Your task to perform on an android device: turn smart compose on in the gmail app Image 0: 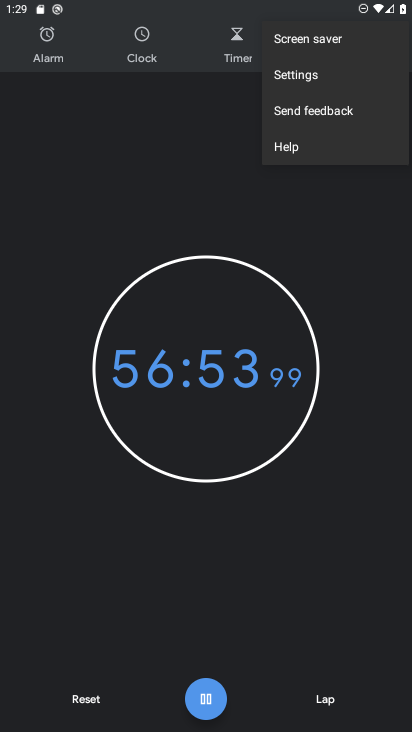
Step 0: click (80, 701)
Your task to perform on an android device: turn smart compose on in the gmail app Image 1: 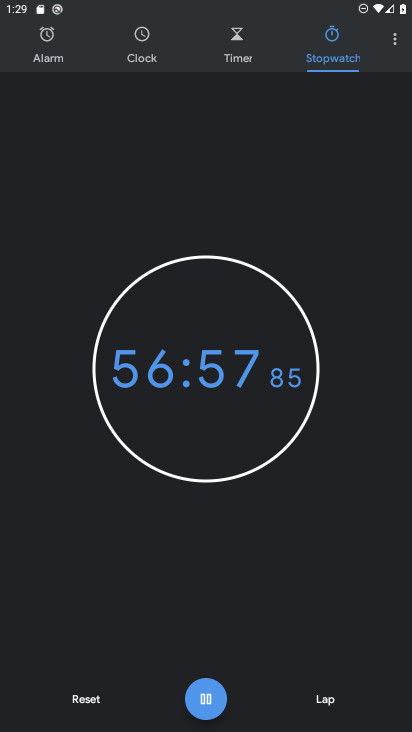
Step 1: click (82, 701)
Your task to perform on an android device: turn smart compose on in the gmail app Image 2: 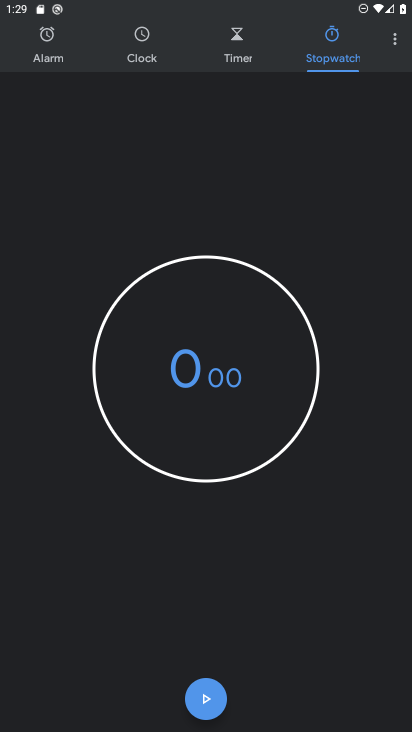
Step 2: press home button
Your task to perform on an android device: turn smart compose on in the gmail app Image 3: 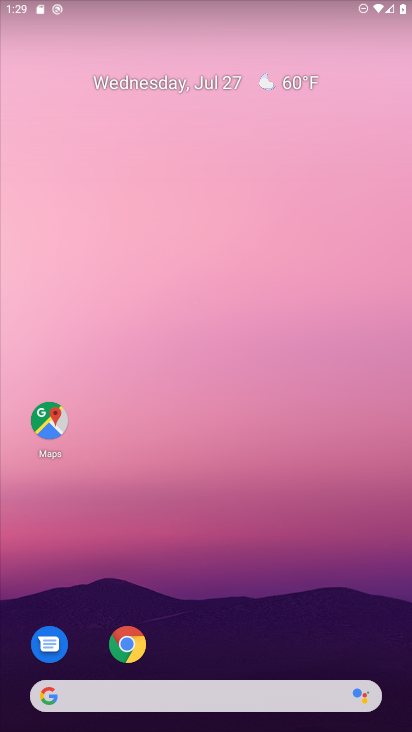
Step 3: drag from (269, 428) to (409, 172)
Your task to perform on an android device: turn smart compose on in the gmail app Image 4: 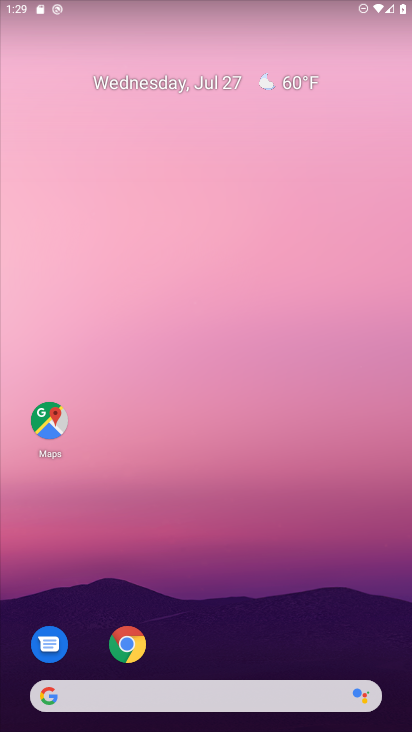
Step 4: drag from (208, 652) to (342, 37)
Your task to perform on an android device: turn smart compose on in the gmail app Image 5: 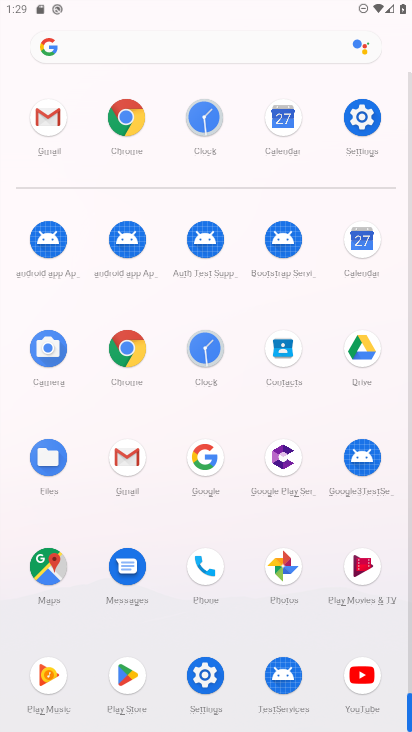
Step 5: click (130, 447)
Your task to perform on an android device: turn smart compose on in the gmail app Image 6: 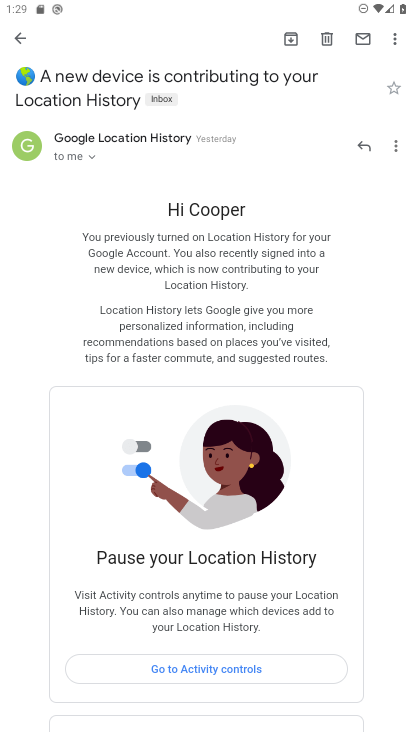
Step 6: drag from (186, 411) to (179, 55)
Your task to perform on an android device: turn smart compose on in the gmail app Image 7: 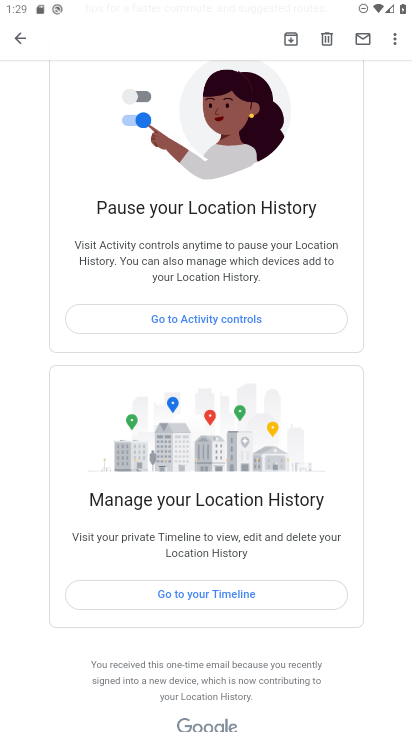
Step 7: click (21, 40)
Your task to perform on an android device: turn smart compose on in the gmail app Image 8: 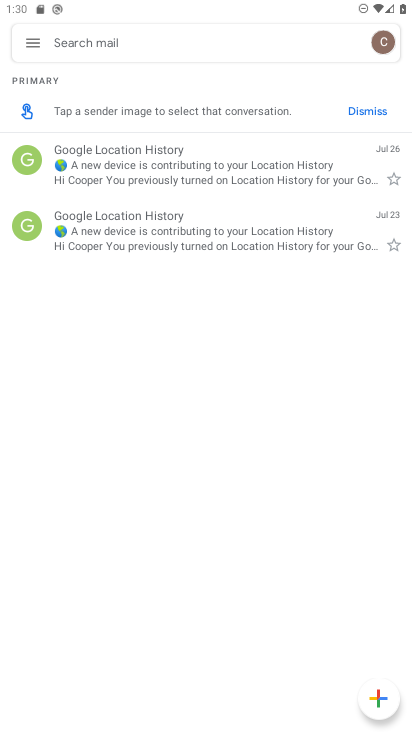
Step 8: click (28, 46)
Your task to perform on an android device: turn smart compose on in the gmail app Image 9: 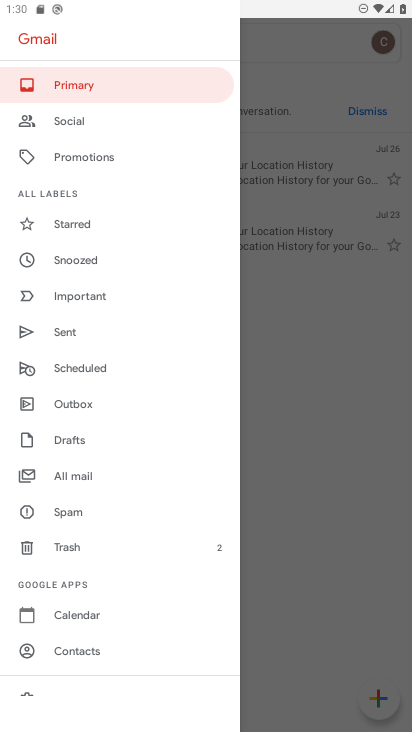
Step 9: drag from (78, 593) to (111, 163)
Your task to perform on an android device: turn smart compose on in the gmail app Image 10: 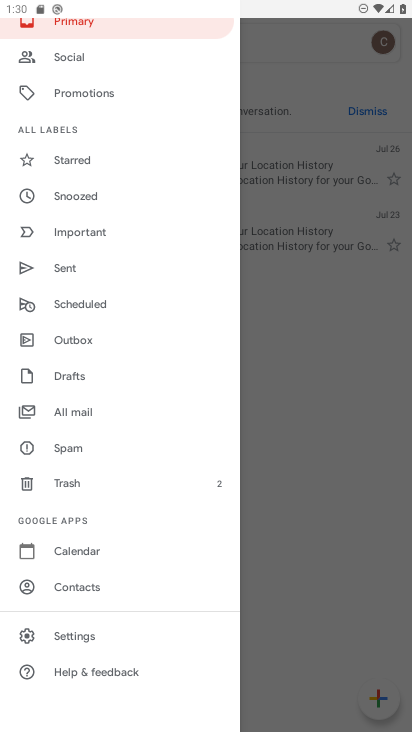
Step 10: click (78, 632)
Your task to perform on an android device: turn smart compose on in the gmail app Image 11: 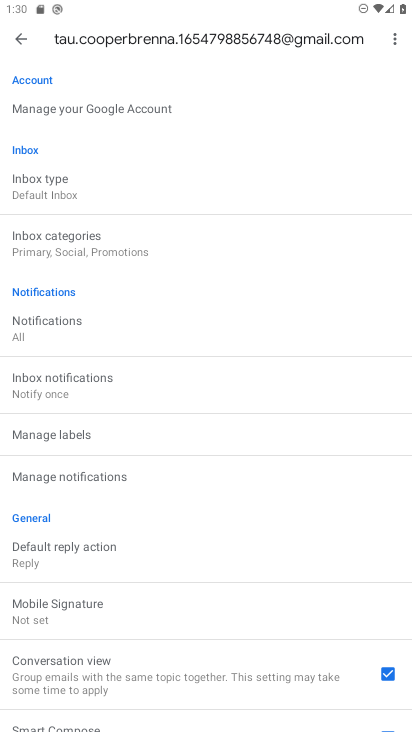
Step 11: task complete